Your task to perform on an android device: Open Chrome and go to the settings page Image 0: 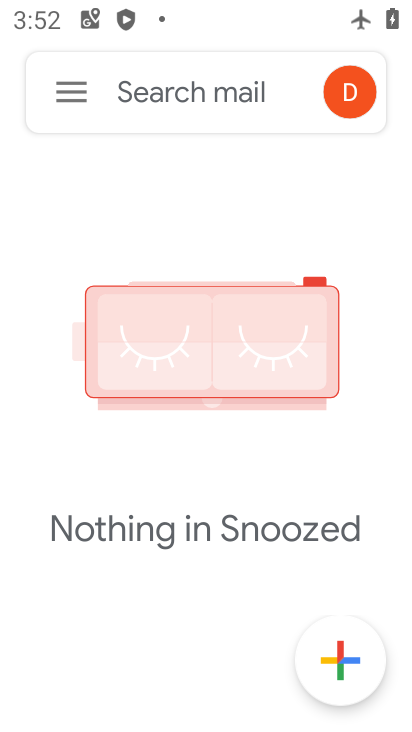
Step 0: press home button
Your task to perform on an android device: Open Chrome and go to the settings page Image 1: 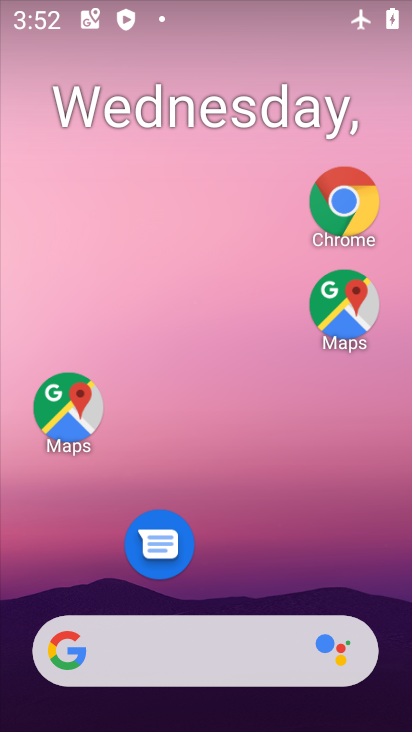
Step 1: click (353, 239)
Your task to perform on an android device: Open Chrome and go to the settings page Image 2: 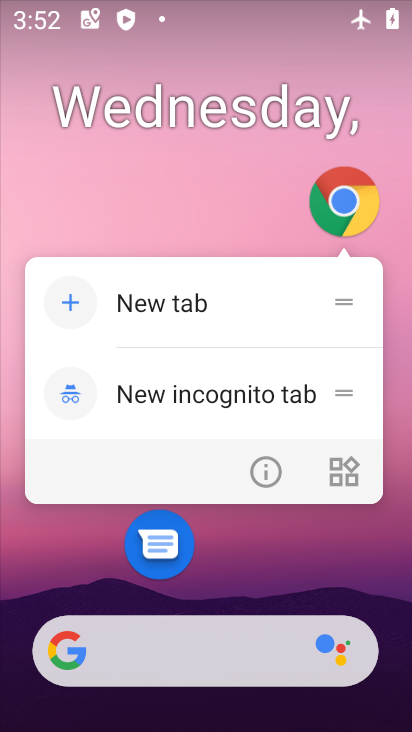
Step 2: click (353, 213)
Your task to perform on an android device: Open Chrome and go to the settings page Image 3: 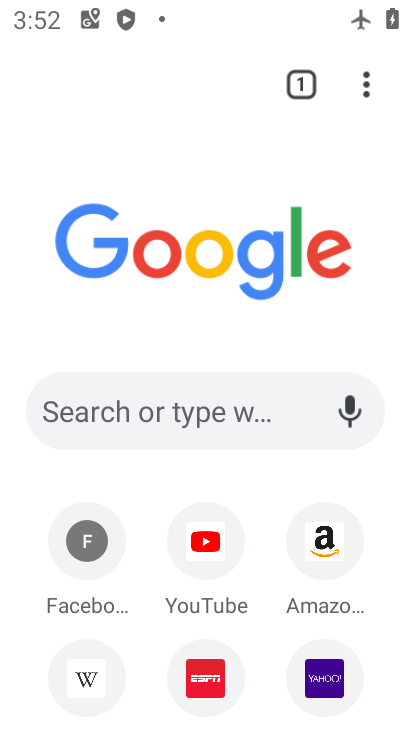
Step 3: click (371, 91)
Your task to perform on an android device: Open Chrome and go to the settings page Image 4: 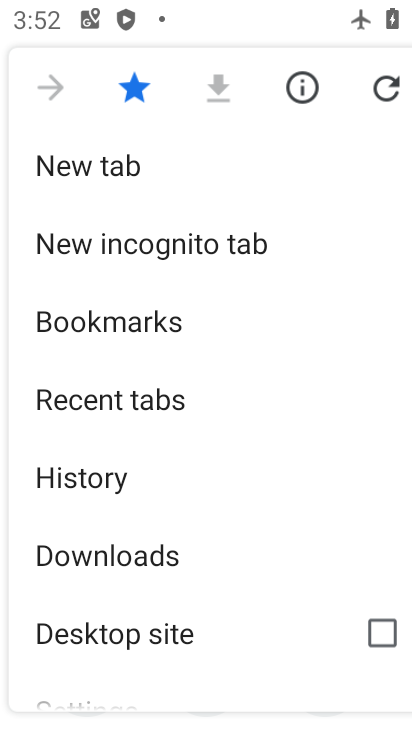
Step 4: drag from (123, 574) to (155, 104)
Your task to perform on an android device: Open Chrome and go to the settings page Image 5: 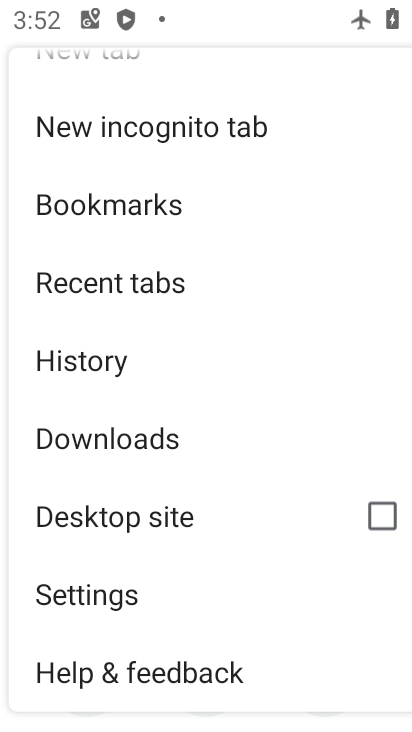
Step 5: click (88, 597)
Your task to perform on an android device: Open Chrome and go to the settings page Image 6: 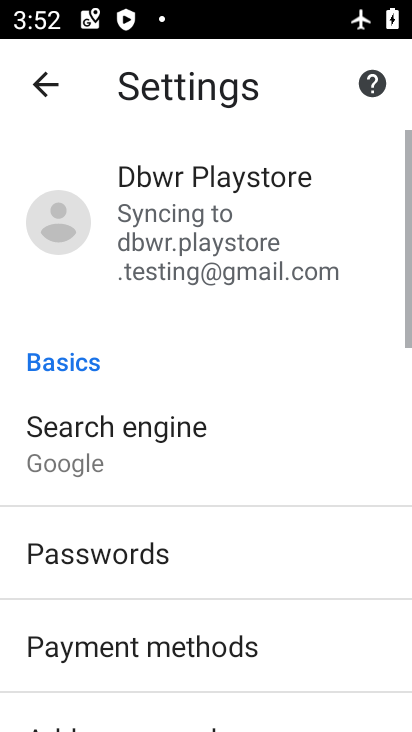
Step 6: task complete